Your task to perform on an android device: turn on data saver in the chrome app Image 0: 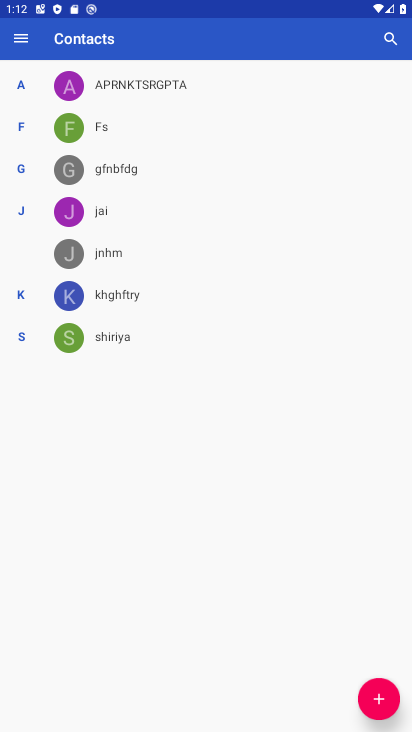
Step 0: press home button
Your task to perform on an android device: turn on data saver in the chrome app Image 1: 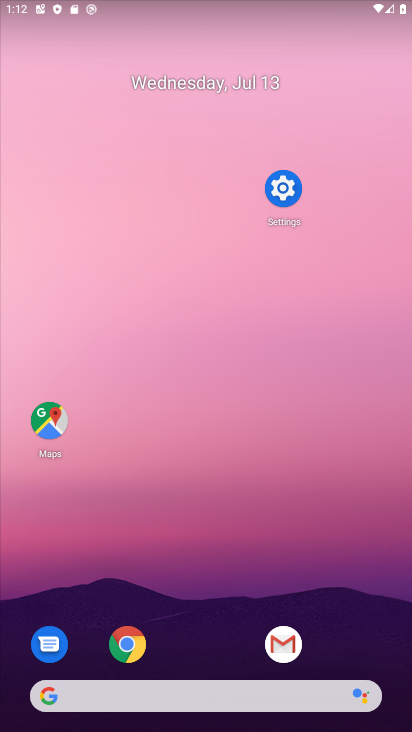
Step 1: click (131, 643)
Your task to perform on an android device: turn on data saver in the chrome app Image 2: 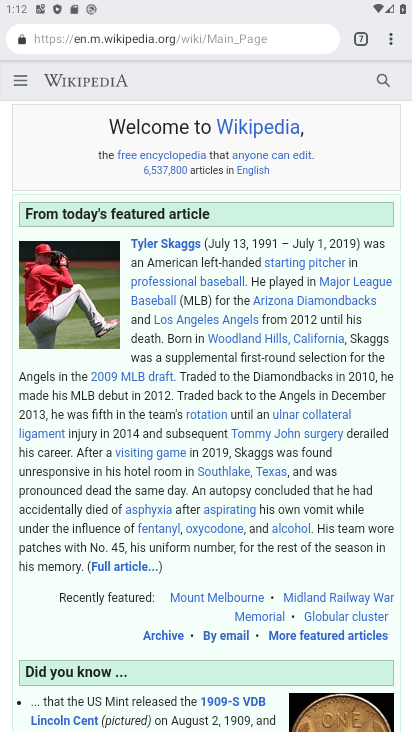
Step 2: click (397, 47)
Your task to perform on an android device: turn on data saver in the chrome app Image 3: 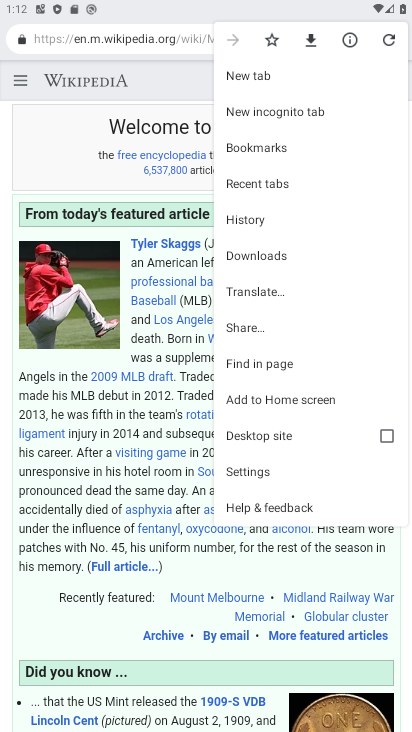
Step 3: click (275, 471)
Your task to perform on an android device: turn on data saver in the chrome app Image 4: 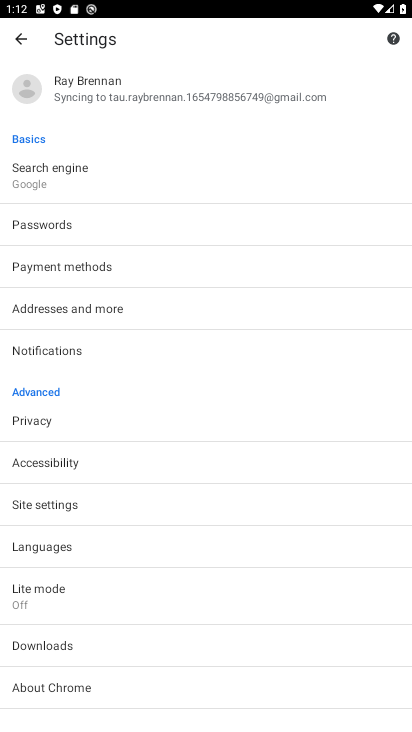
Step 4: click (47, 590)
Your task to perform on an android device: turn on data saver in the chrome app Image 5: 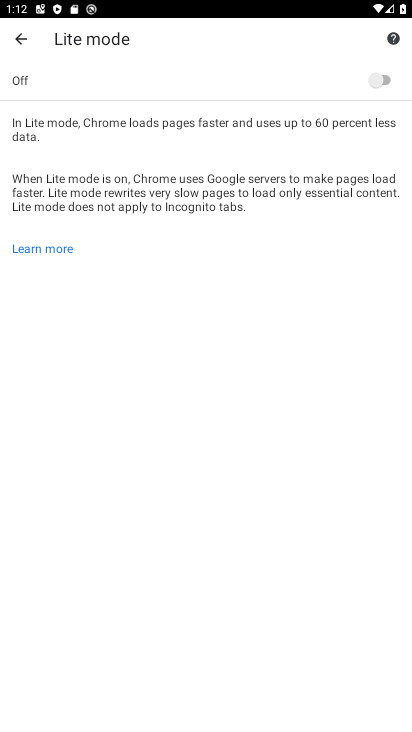
Step 5: click (372, 79)
Your task to perform on an android device: turn on data saver in the chrome app Image 6: 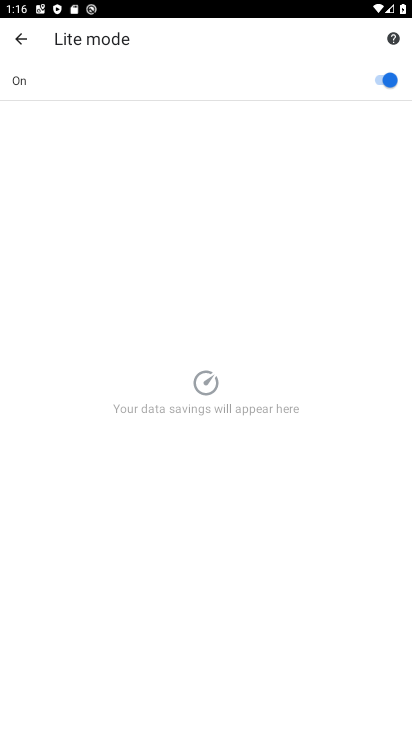
Step 6: task complete